Your task to perform on an android device: set the timer Image 0: 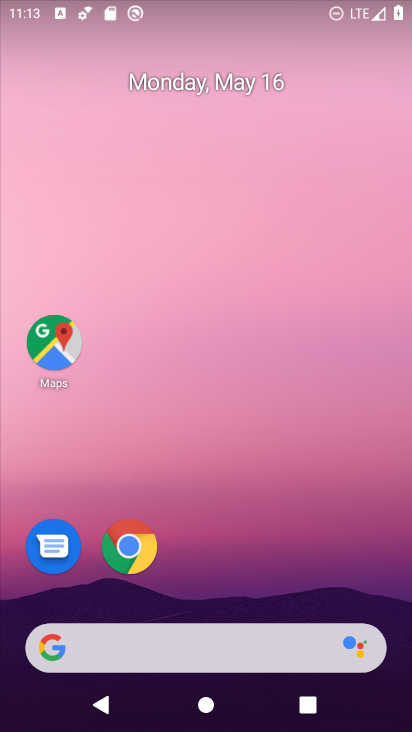
Step 0: drag from (175, 602) to (188, 122)
Your task to perform on an android device: set the timer Image 1: 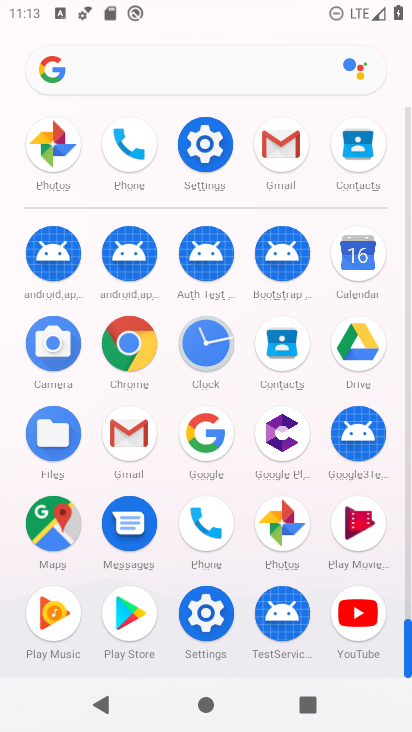
Step 1: click (212, 326)
Your task to perform on an android device: set the timer Image 2: 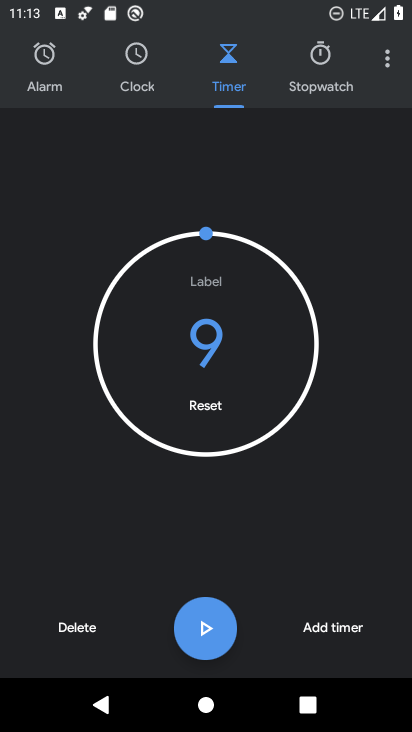
Step 2: click (209, 636)
Your task to perform on an android device: set the timer Image 3: 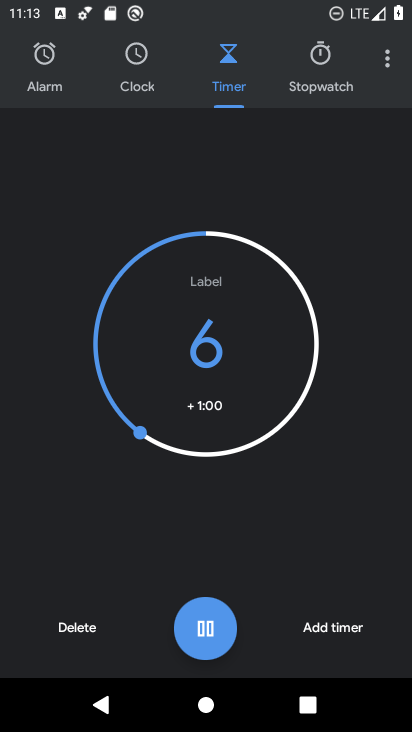
Step 3: task complete